Your task to perform on an android device: Search for the best running shoes on Nike. Image 0: 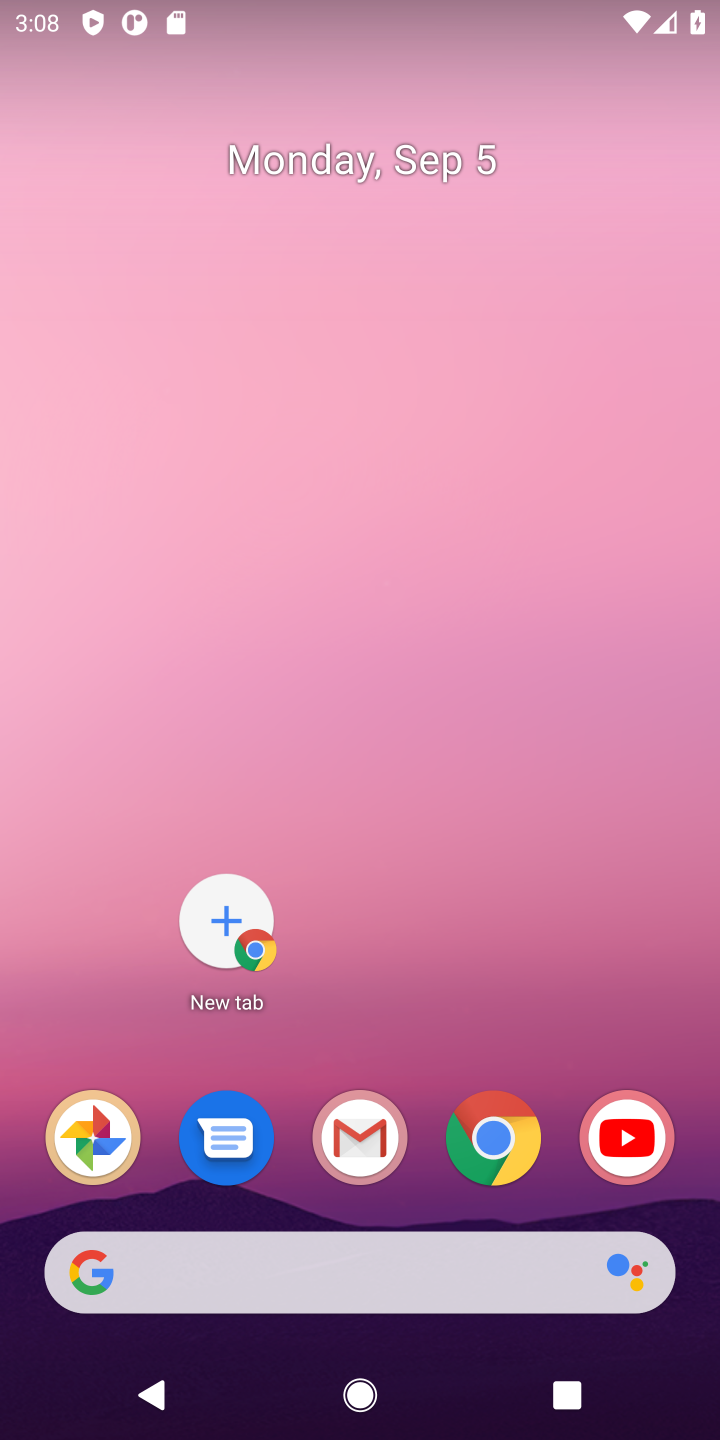
Step 0: click (471, 1135)
Your task to perform on an android device: Search for the best running shoes on Nike. Image 1: 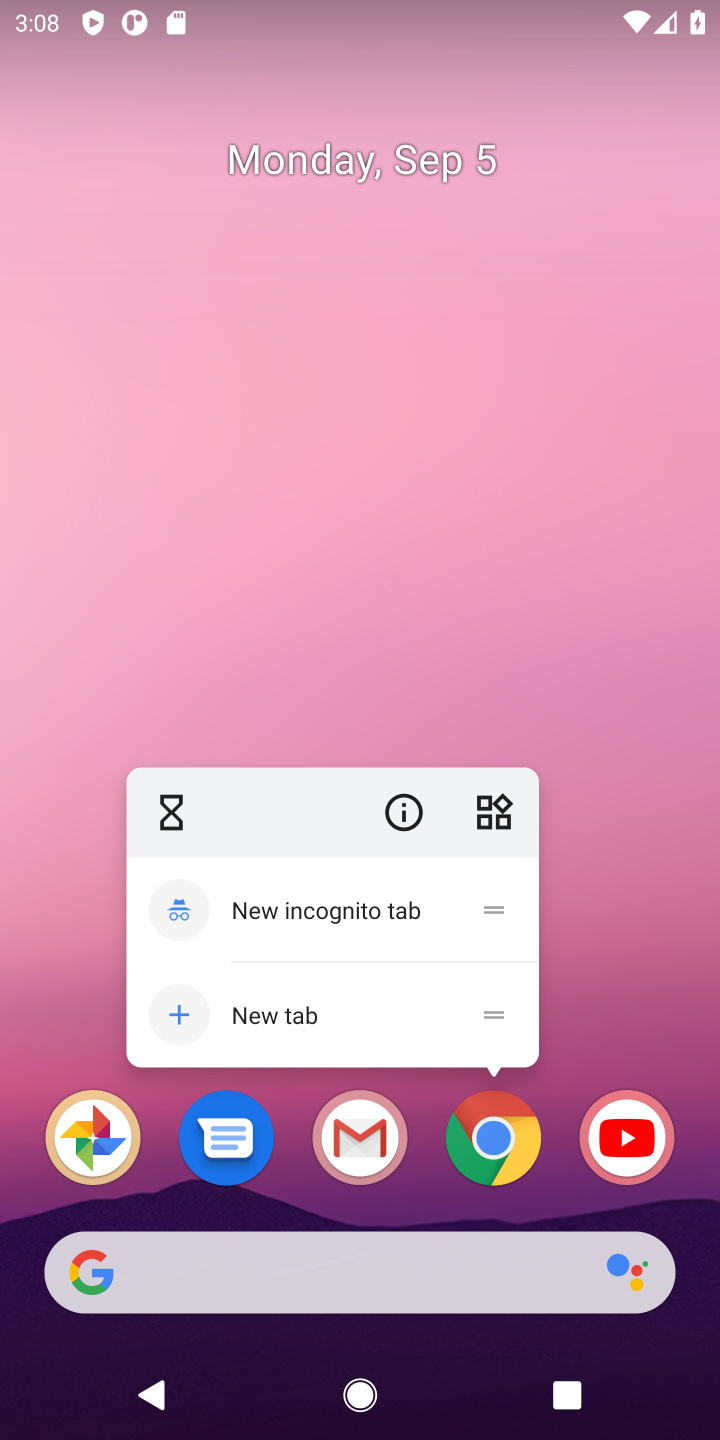
Step 1: click (475, 1137)
Your task to perform on an android device: Search for the best running shoes on Nike. Image 2: 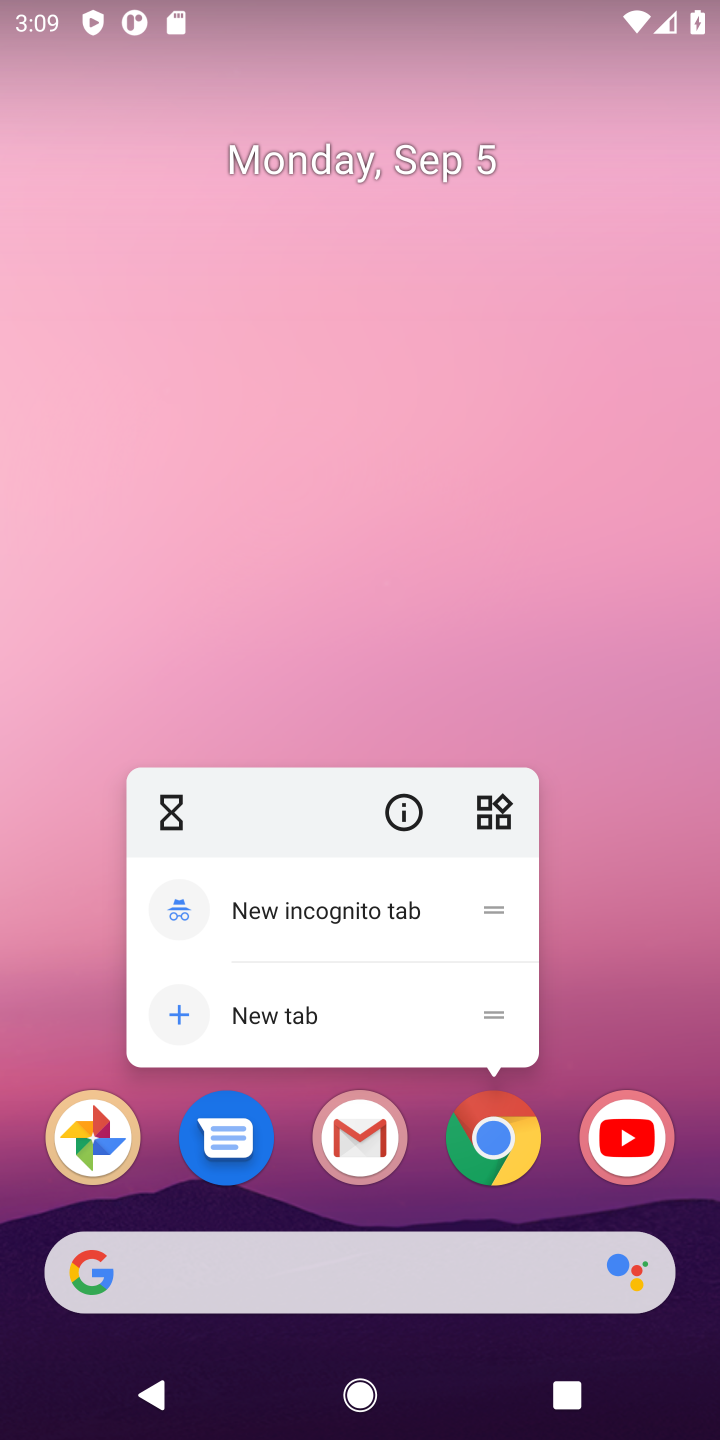
Step 2: click (486, 1143)
Your task to perform on an android device: Search for the best running shoes on Nike. Image 3: 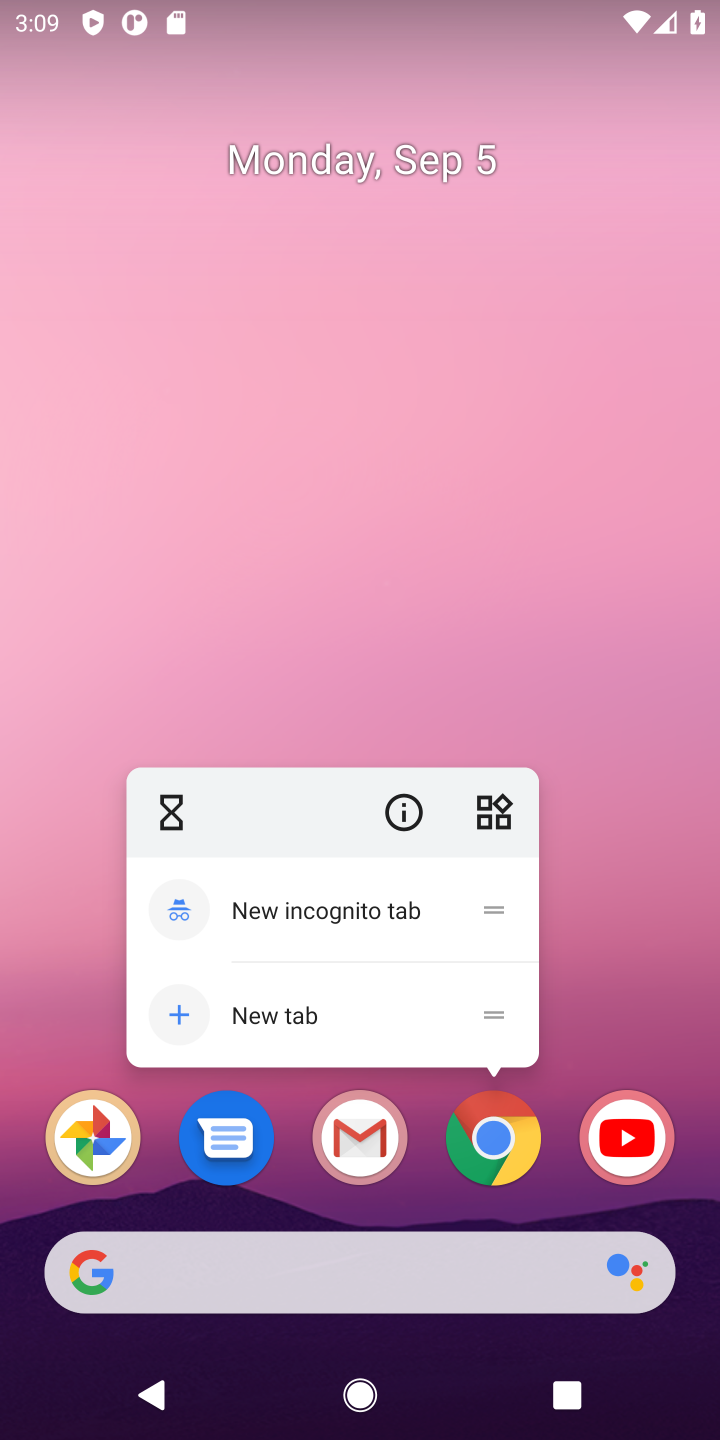
Step 3: click (495, 1142)
Your task to perform on an android device: Search for the best running shoes on Nike. Image 4: 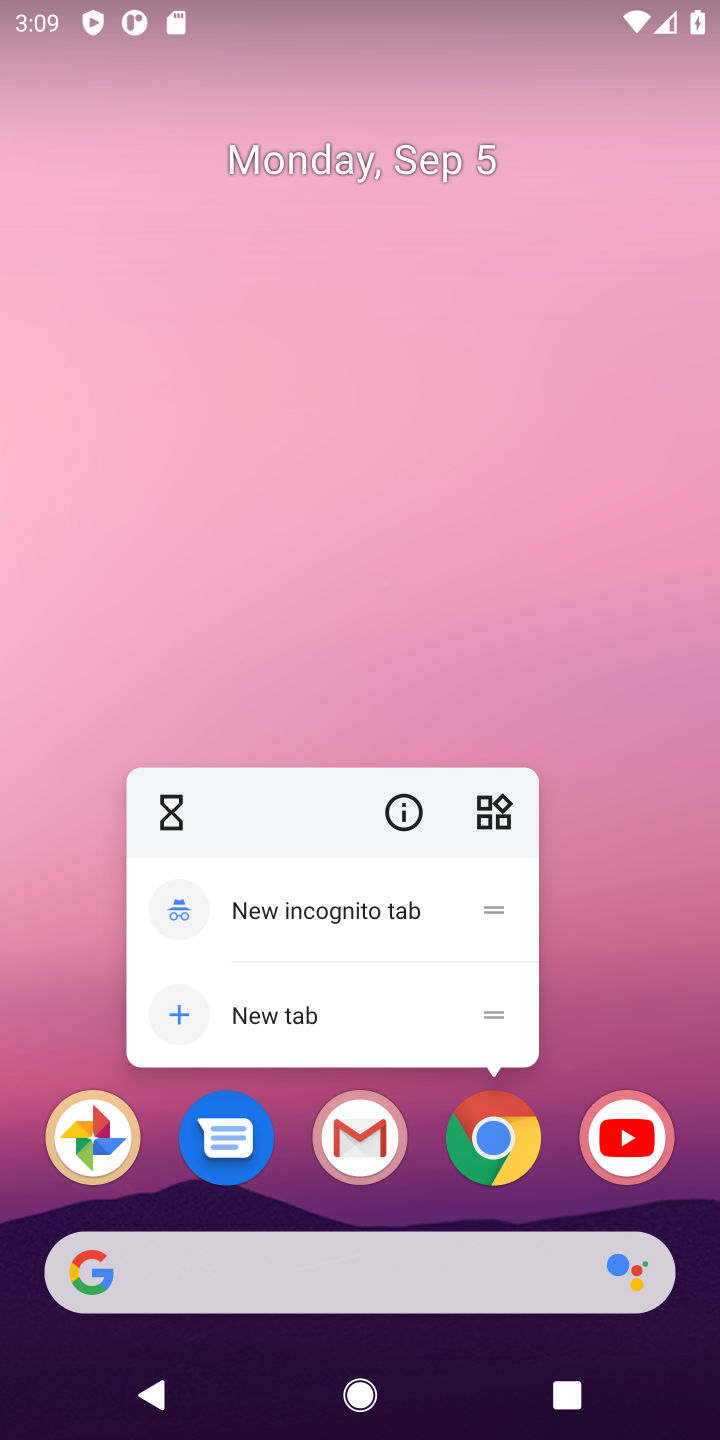
Step 4: click (495, 1142)
Your task to perform on an android device: Search for the best running shoes on Nike. Image 5: 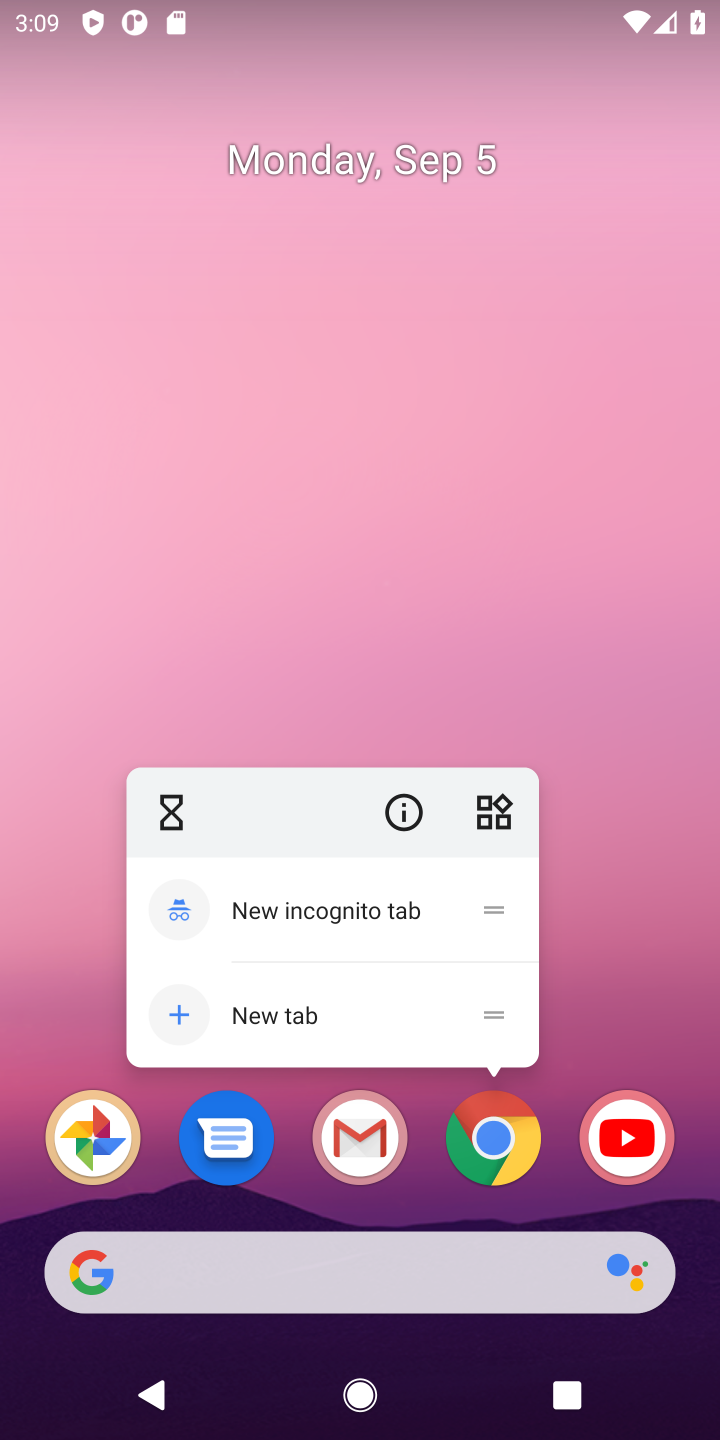
Step 5: click (482, 1145)
Your task to perform on an android device: Search for the best running shoes on Nike. Image 6: 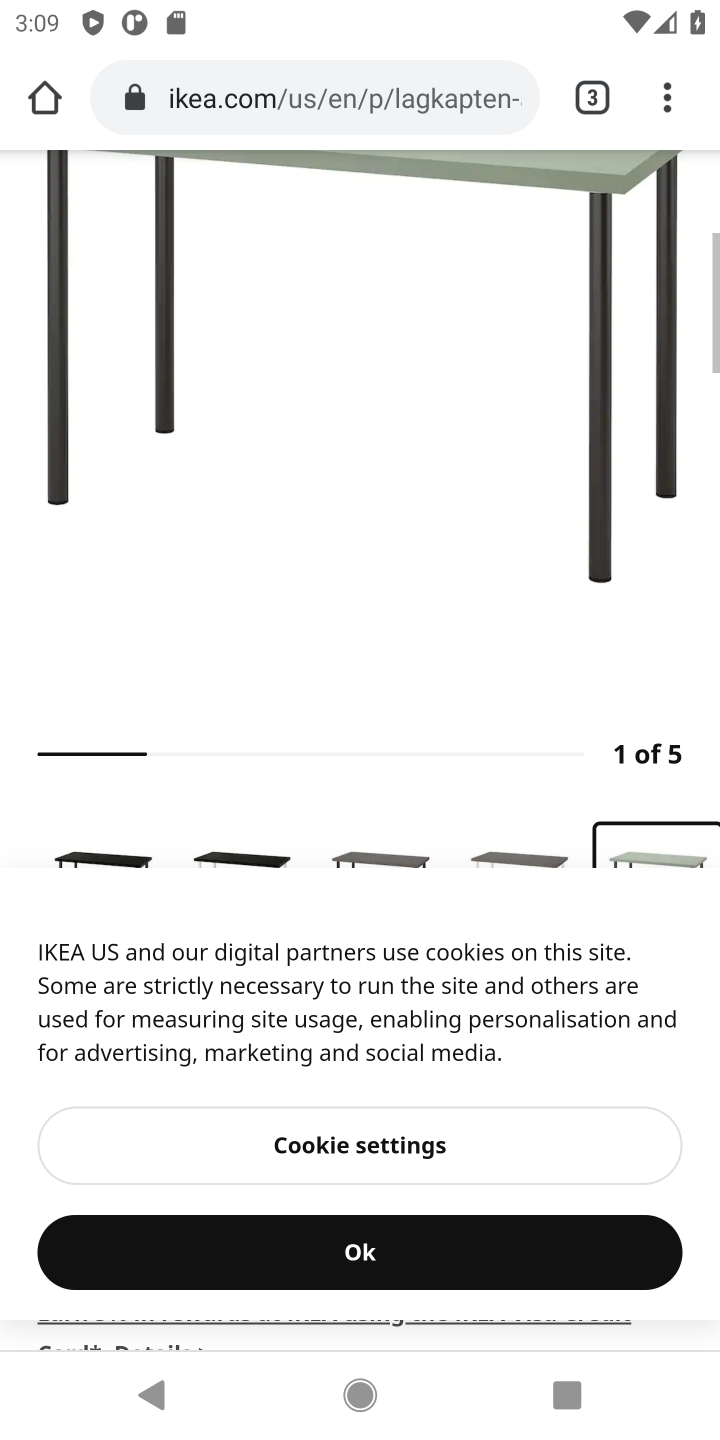
Step 6: click (299, 104)
Your task to perform on an android device: Search for the best running shoes on Nike. Image 7: 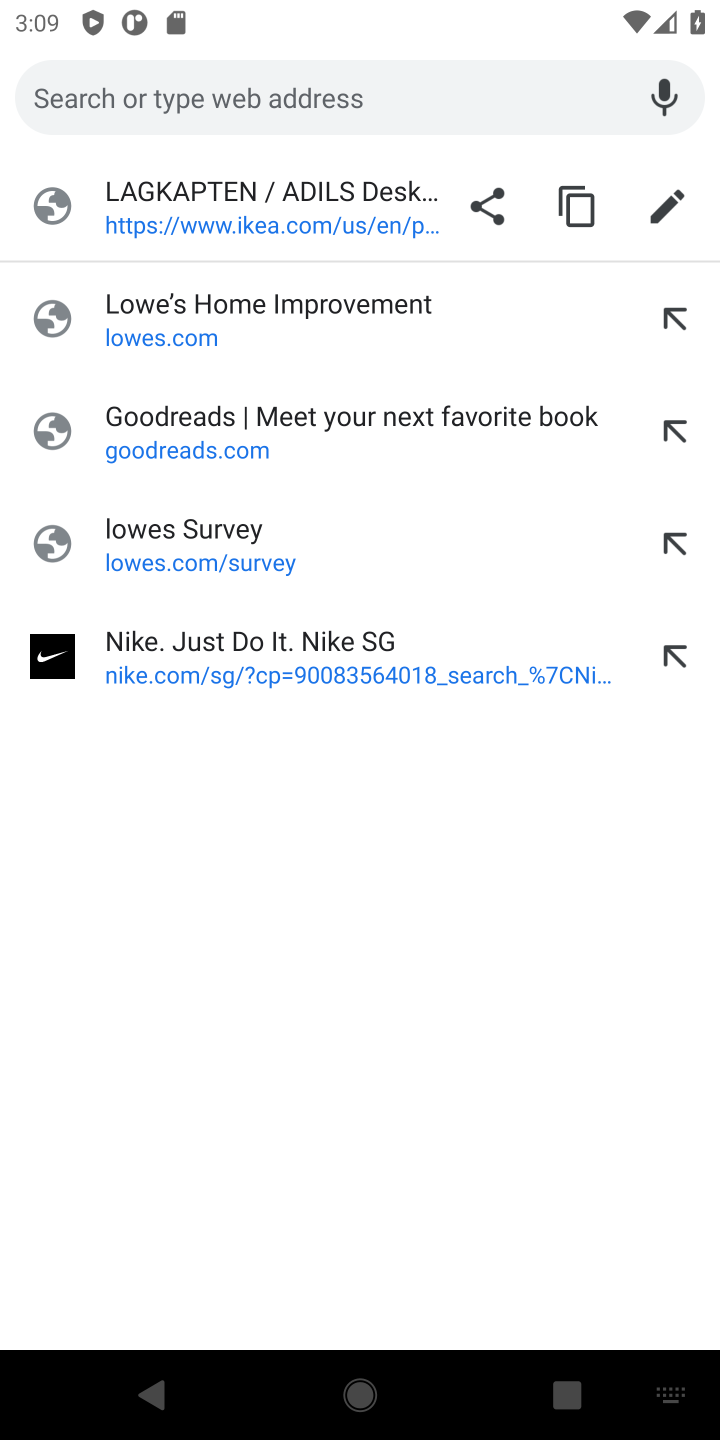
Step 7: type "nike"
Your task to perform on an android device: Search for the best running shoes on Nike. Image 8: 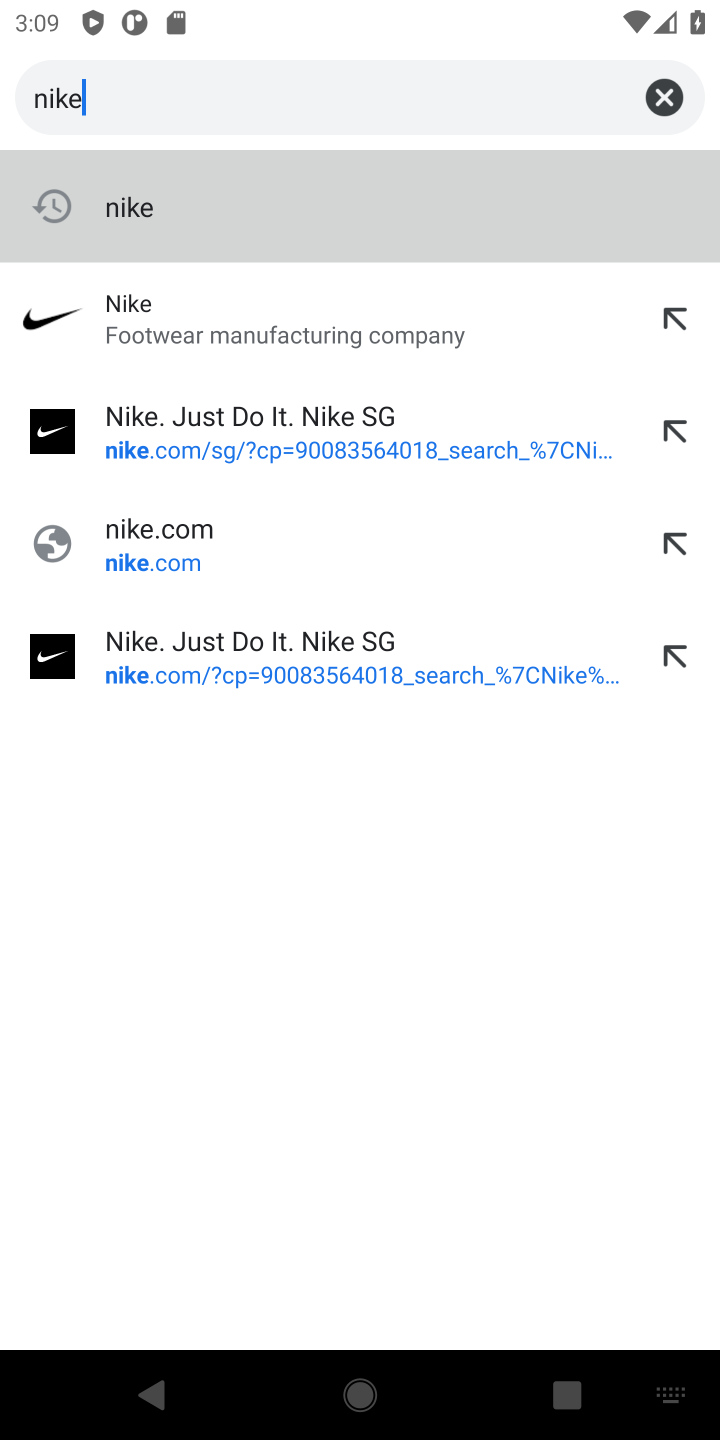
Step 8: click (149, 446)
Your task to perform on an android device: Search for the best running shoes on Nike. Image 9: 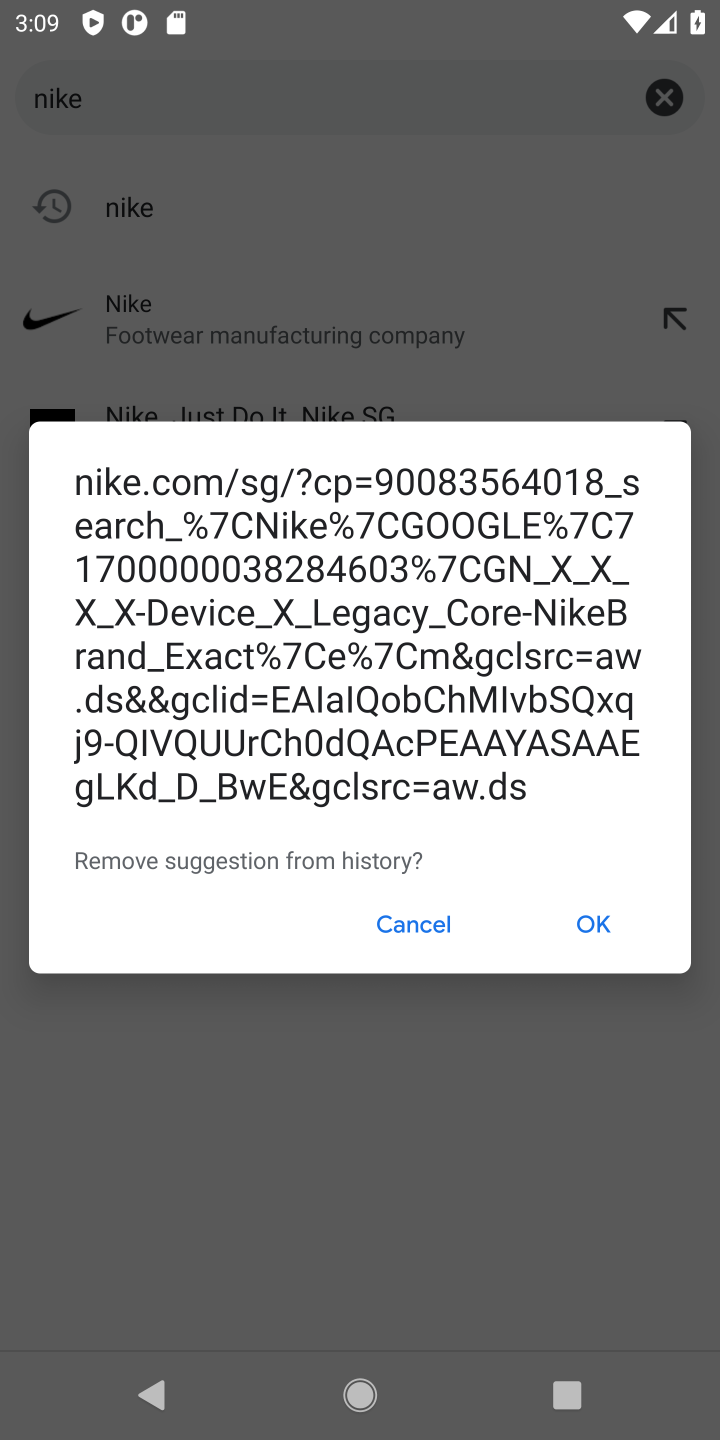
Step 9: click (385, 932)
Your task to perform on an android device: Search for the best running shoes on Nike. Image 10: 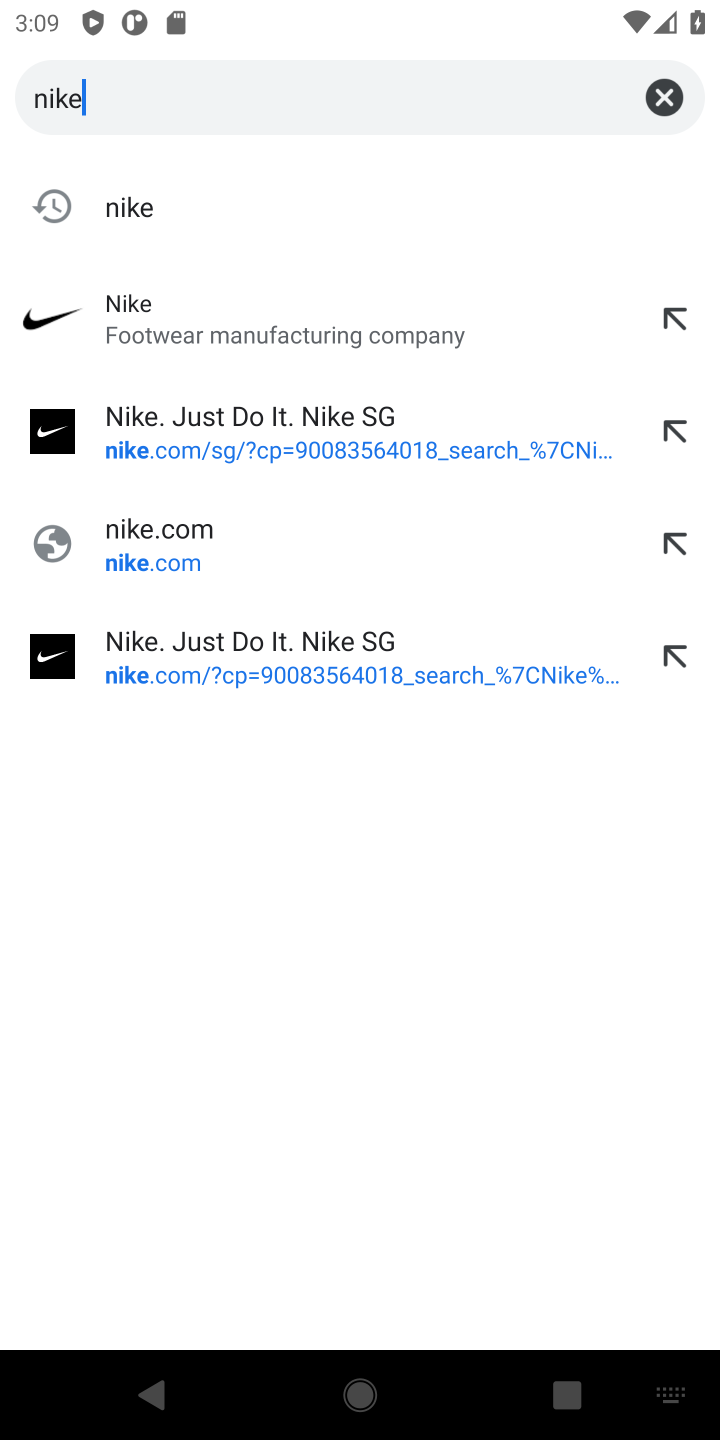
Step 10: click (174, 403)
Your task to perform on an android device: Search for the best running shoes on Nike. Image 11: 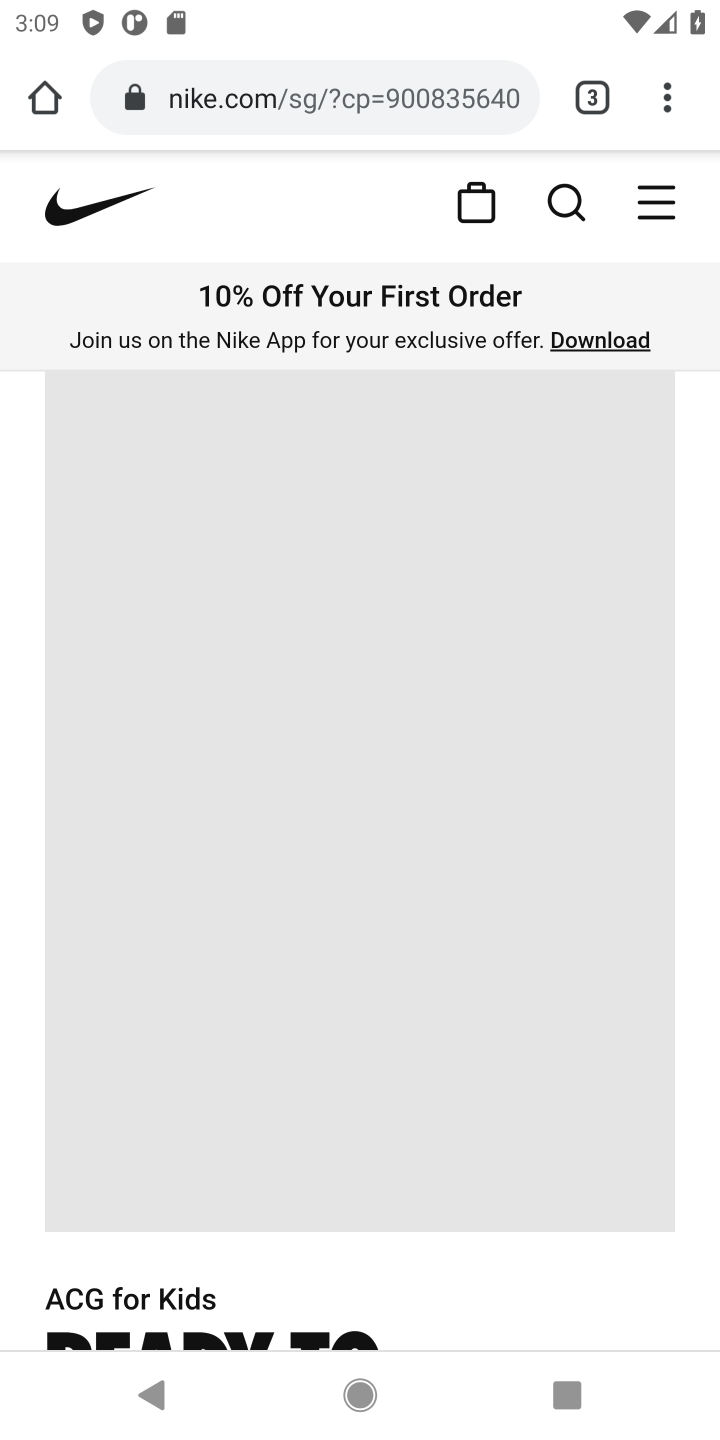
Step 11: click (551, 195)
Your task to perform on an android device: Search for the best running shoes on Nike. Image 12: 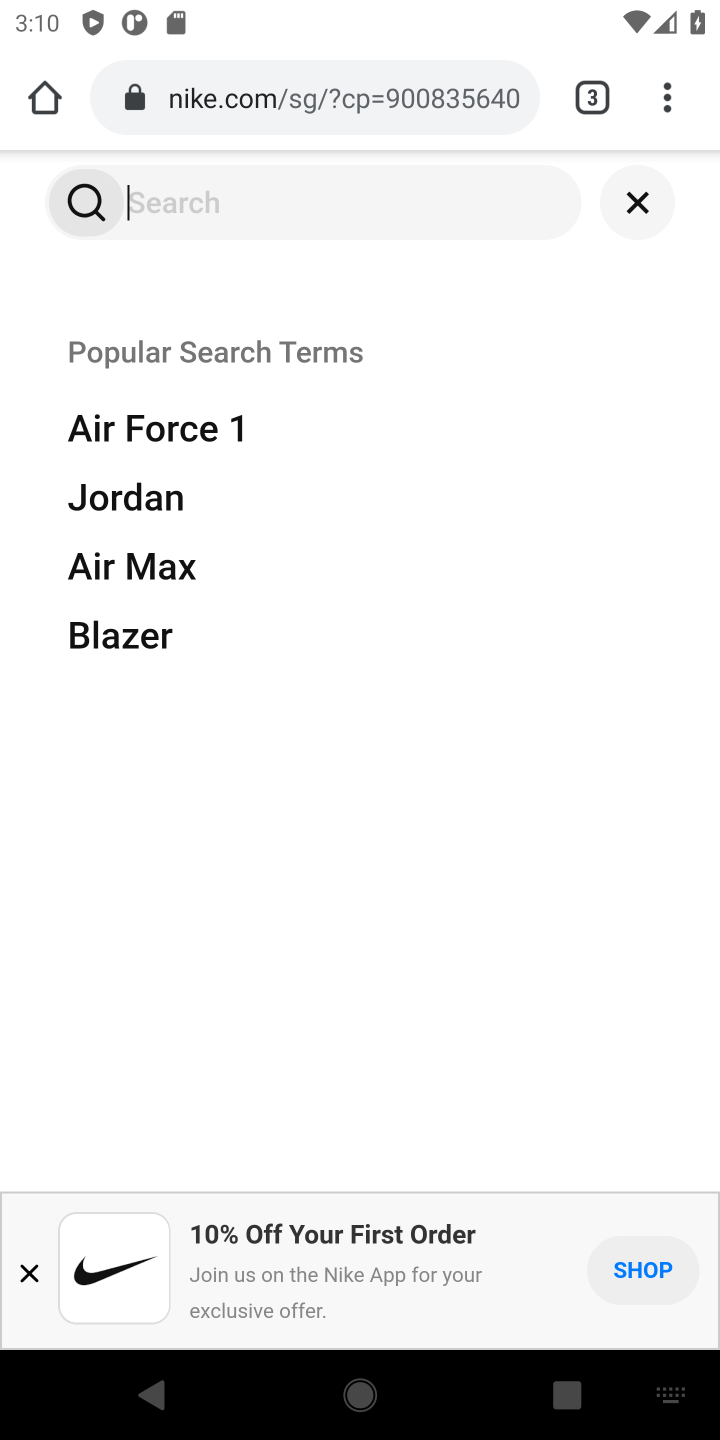
Step 12: type "running shoes"
Your task to perform on an android device: Search for the best running shoes on Nike. Image 13: 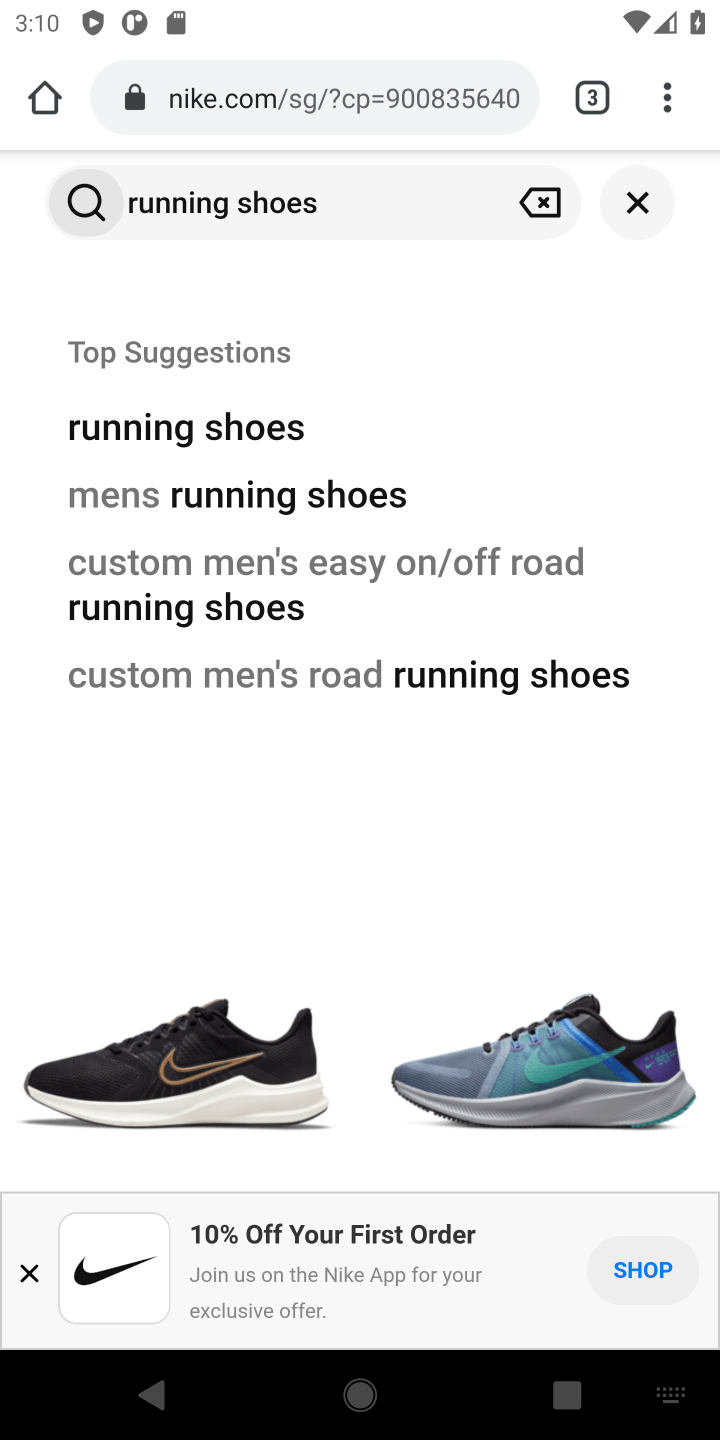
Step 13: click (93, 435)
Your task to perform on an android device: Search for the best running shoes on Nike. Image 14: 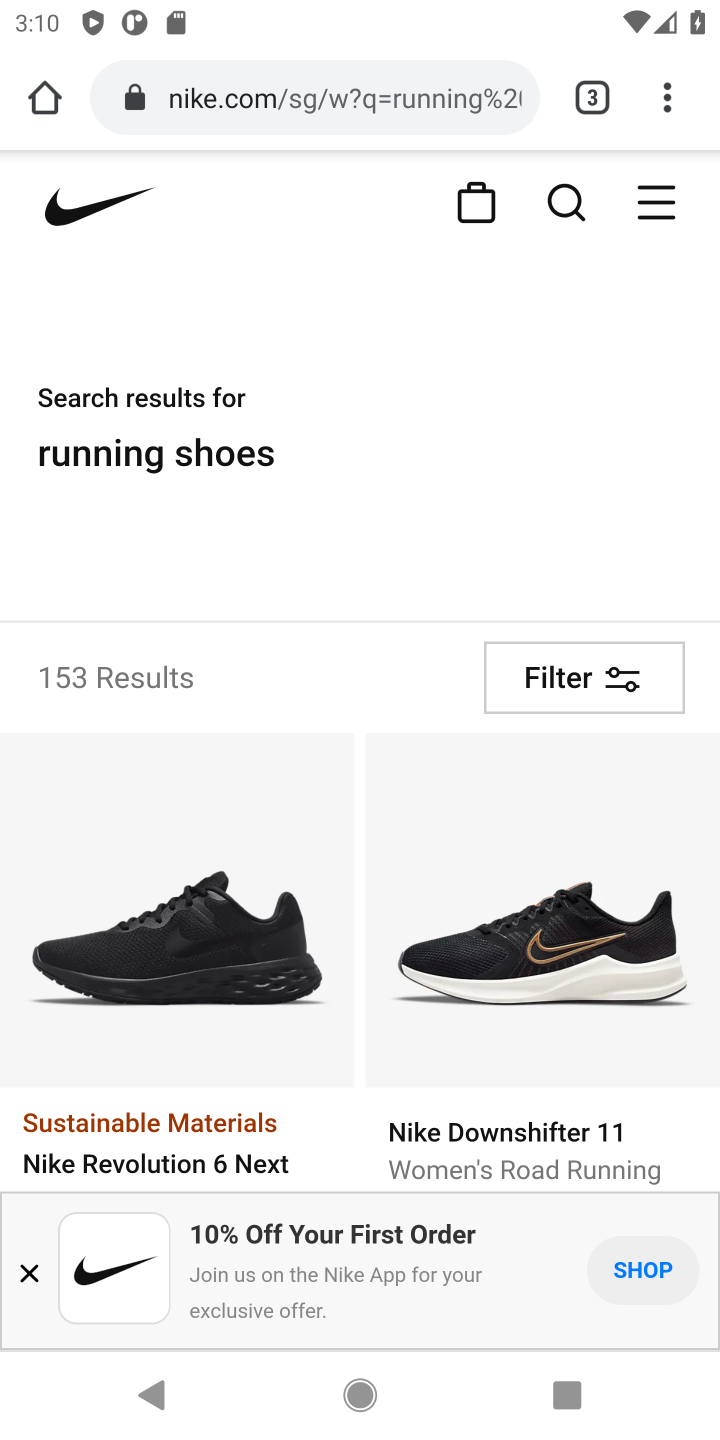
Step 14: drag from (333, 887) to (561, 434)
Your task to perform on an android device: Search for the best running shoes on Nike. Image 15: 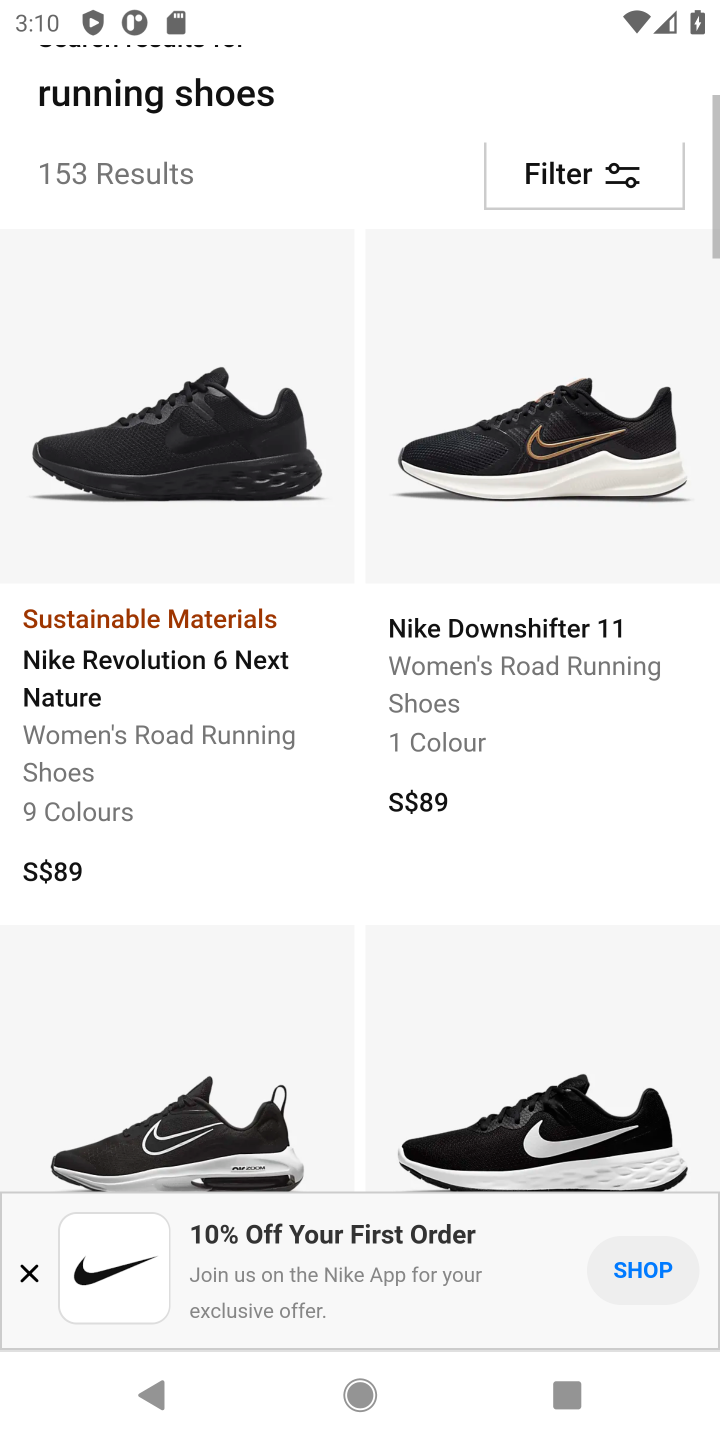
Step 15: drag from (542, 605) to (533, 395)
Your task to perform on an android device: Search for the best running shoes on Nike. Image 16: 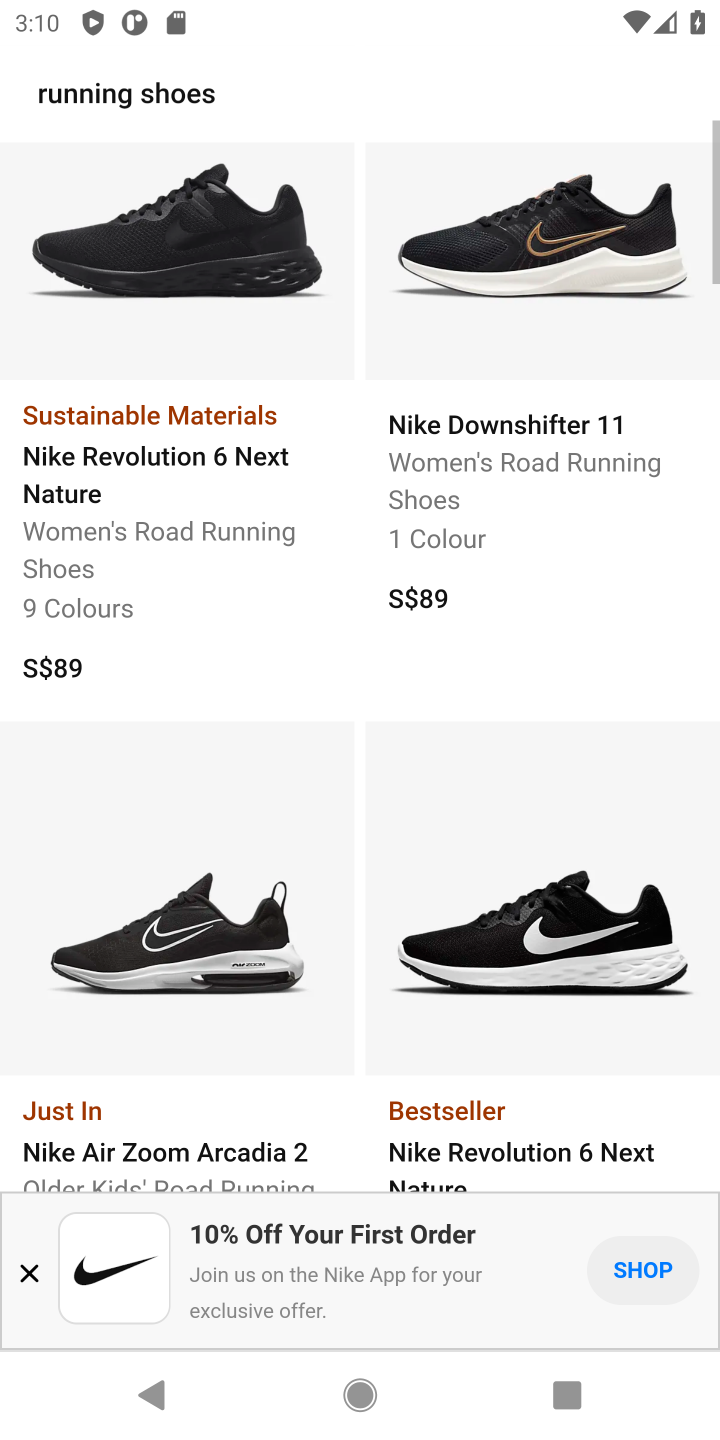
Step 16: click (559, 544)
Your task to perform on an android device: Search for the best running shoes on Nike. Image 17: 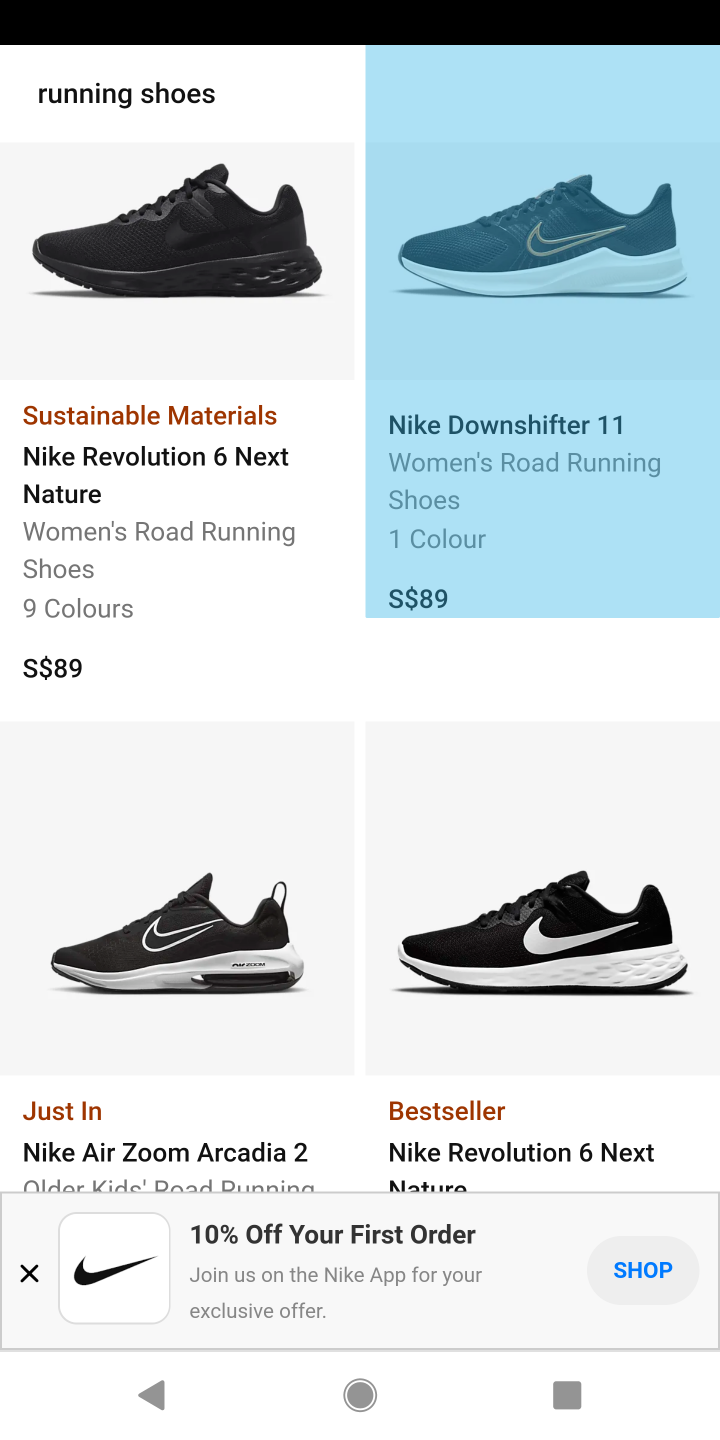
Step 17: drag from (470, 720) to (527, 470)
Your task to perform on an android device: Search for the best running shoes on Nike. Image 18: 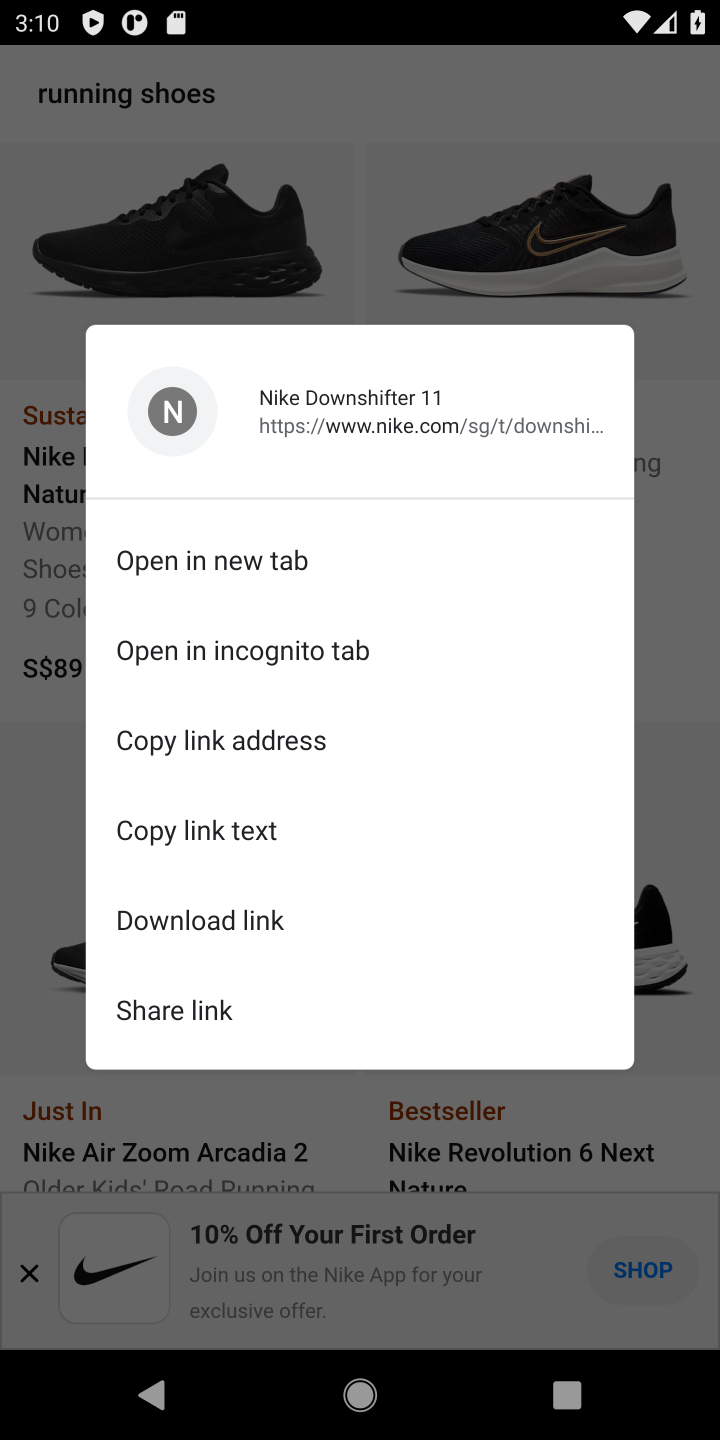
Step 18: click (688, 780)
Your task to perform on an android device: Search for the best running shoes on Nike. Image 19: 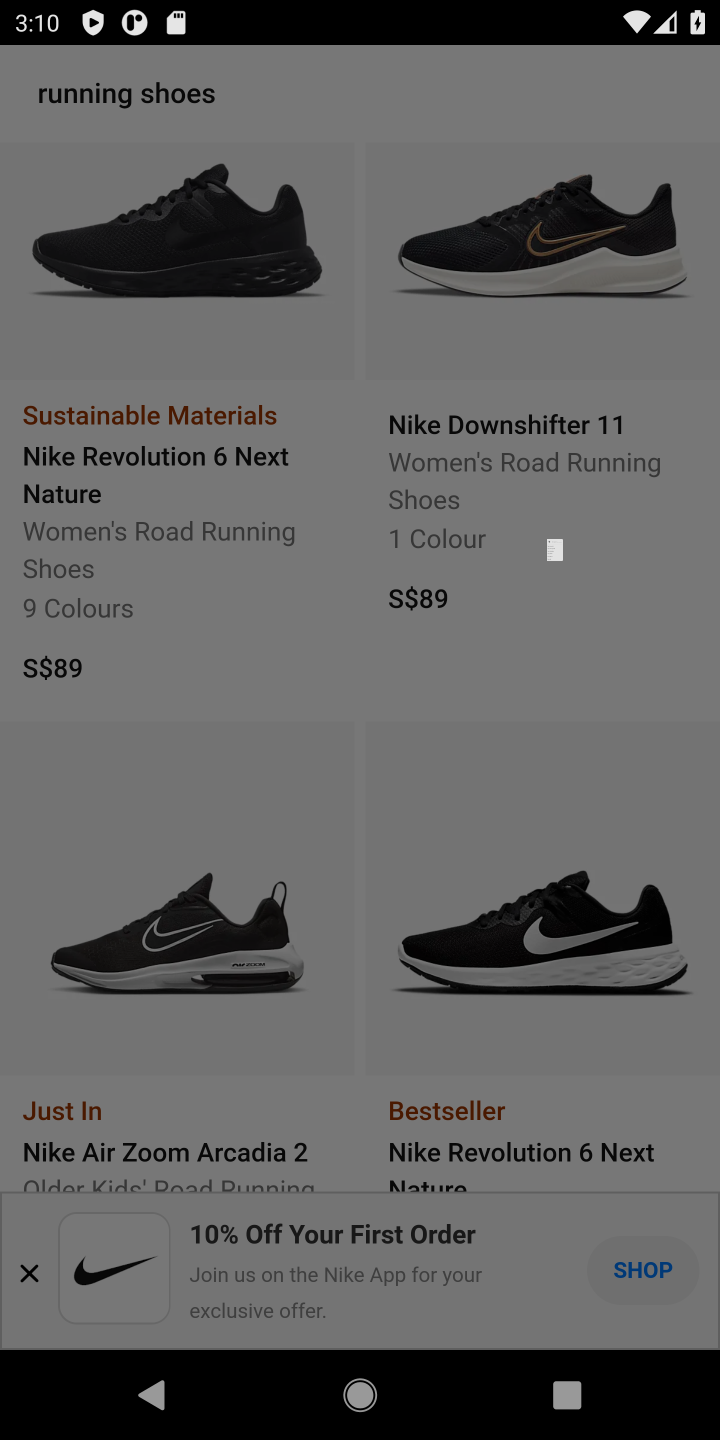
Step 19: task complete